Your task to perform on an android device: turn on the 24-hour format for clock Image 0: 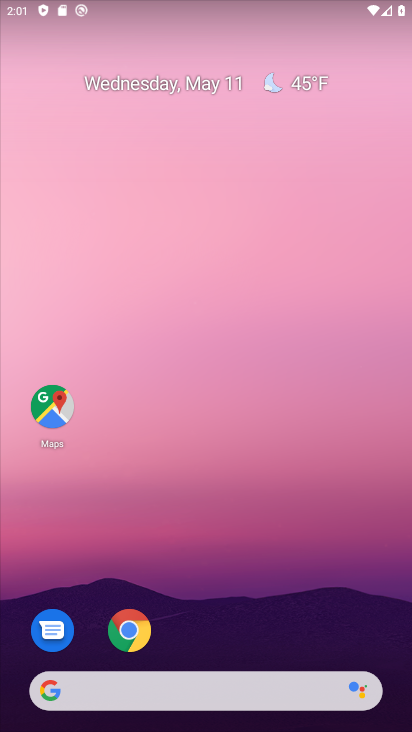
Step 0: drag from (206, 725) to (203, 424)
Your task to perform on an android device: turn on the 24-hour format for clock Image 1: 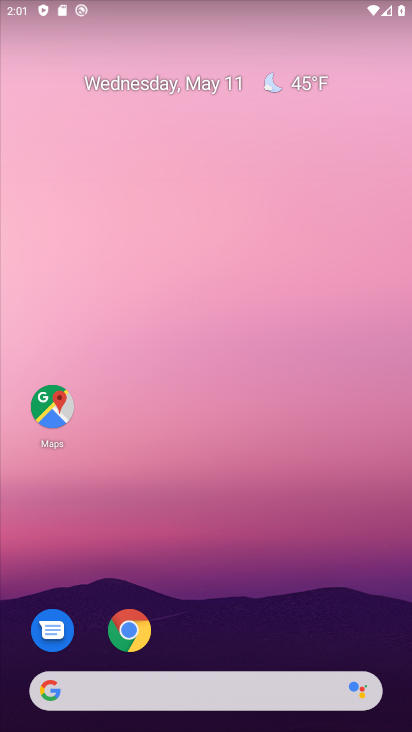
Step 1: drag from (217, 724) to (212, 423)
Your task to perform on an android device: turn on the 24-hour format for clock Image 2: 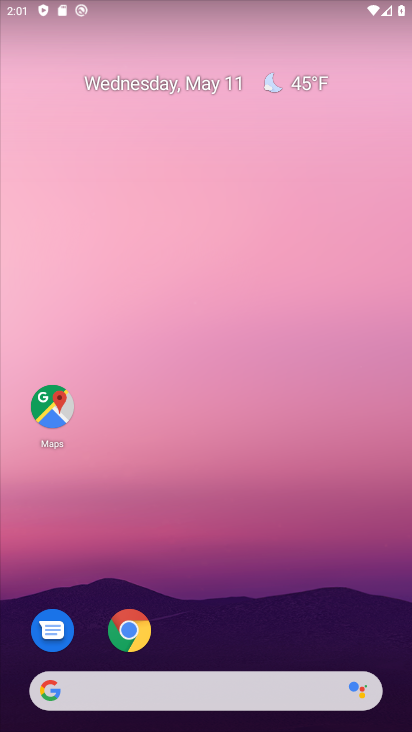
Step 2: drag from (202, 725) to (201, 369)
Your task to perform on an android device: turn on the 24-hour format for clock Image 3: 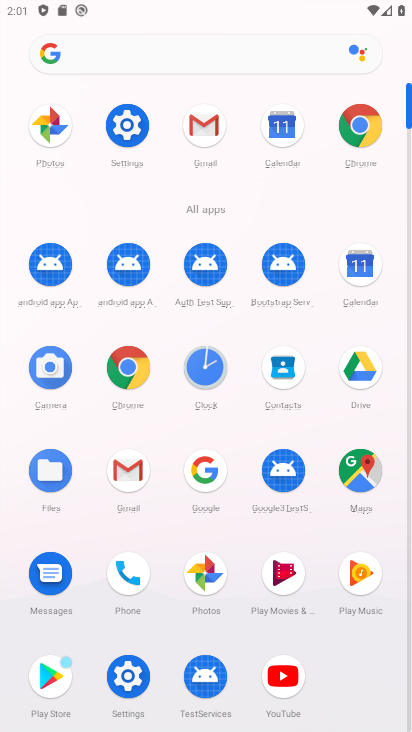
Step 3: click (203, 369)
Your task to perform on an android device: turn on the 24-hour format for clock Image 4: 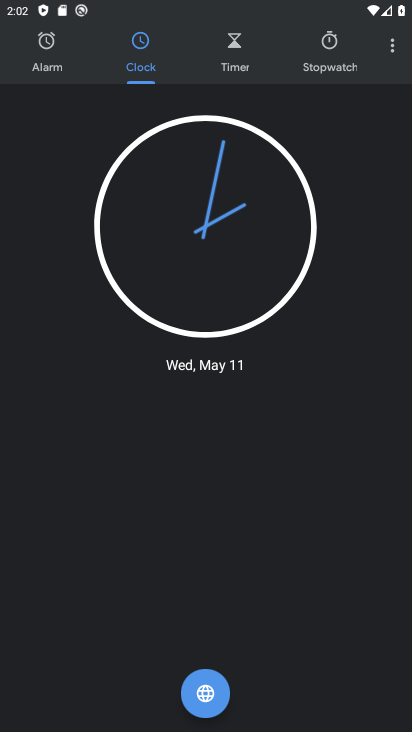
Step 4: click (393, 45)
Your task to perform on an android device: turn on the 24-hour format for clock Image 5: 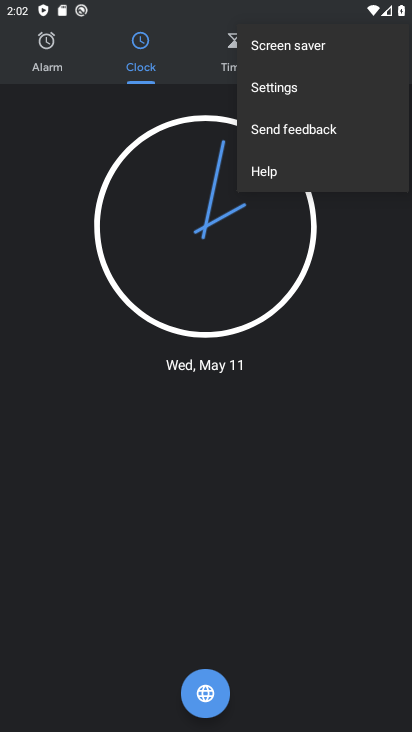
Step 5: click (269, 95)
Your task to perform on an android device: turn on the 24-hour format for clock Image 6: 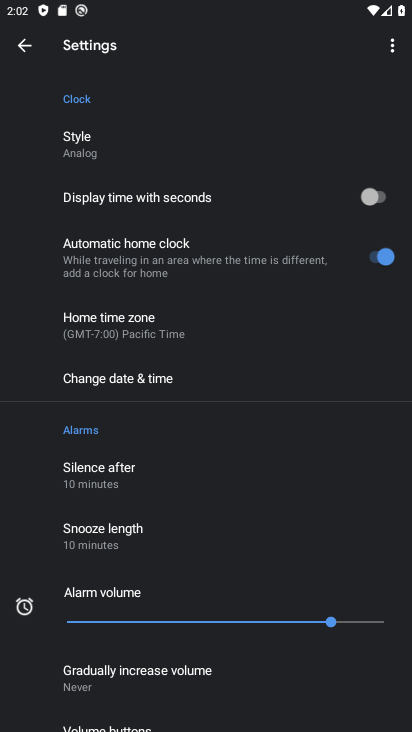
Step 6: click (109, 381)
Your task to perform on an android device: turn on the 24-hour format for clock Image 7: 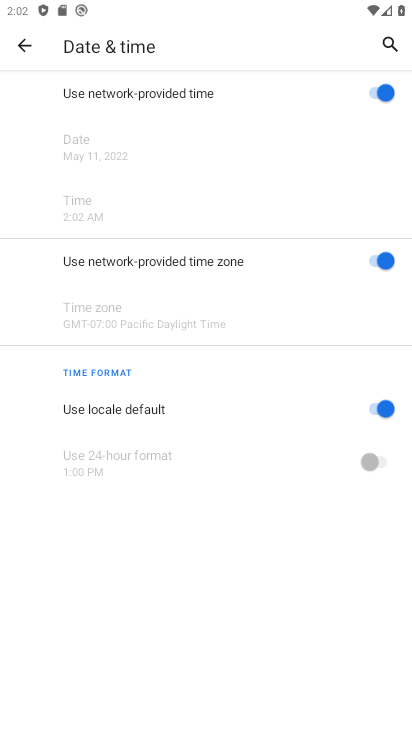
Step 7: click (371, 408)
Your task to perform on an android device: turn on the 24-hour format for clock Image 8: 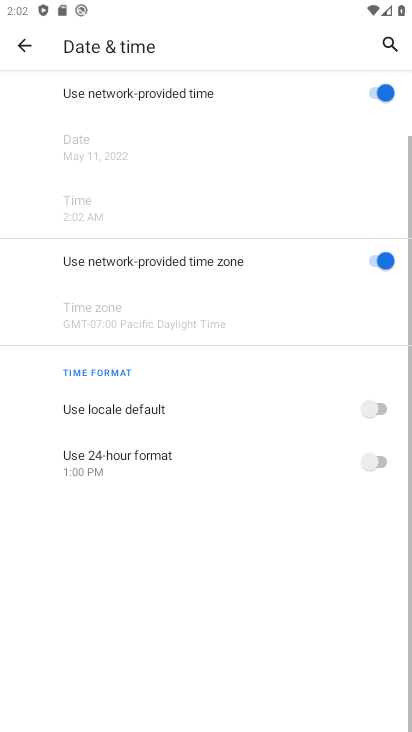
Step 8: click (381, 460)
Your task to perform on an android device: turn on the 24-hour format for clock Image 9: 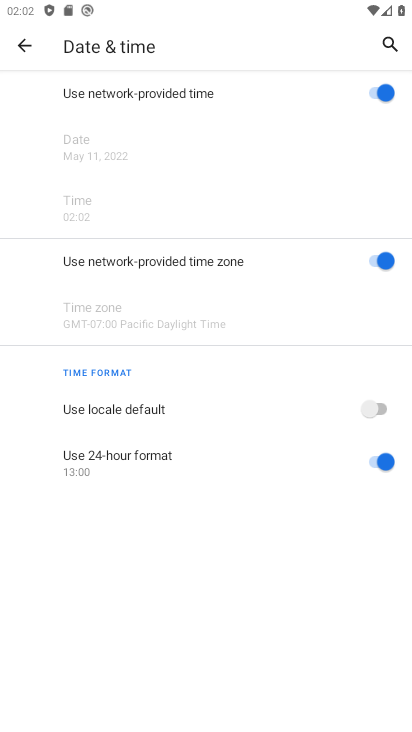
Step 9: task complete